Your task to perform on an android device: Open calendar and show me the first week of next month Image 0: 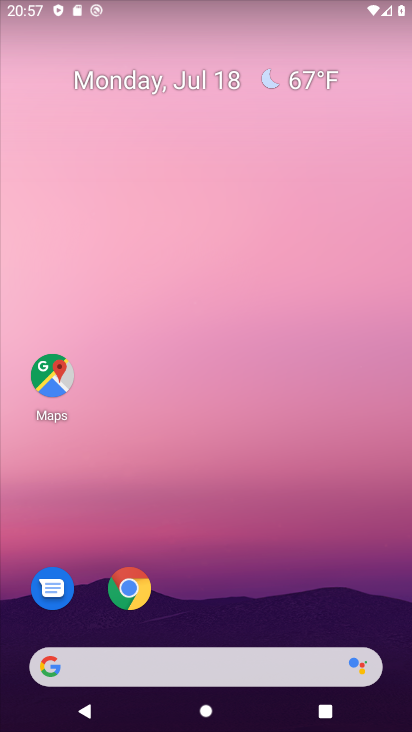
Step 0: drag from (370, 609) to (316, 118)
Your task to perform on an android device: Open calendar and show me the first week of next month Image 1: 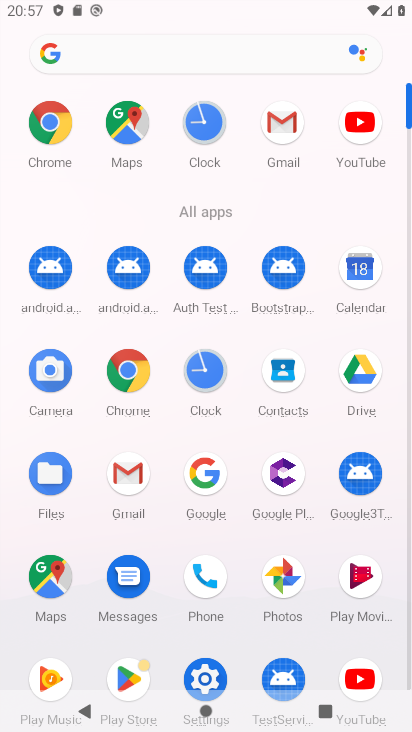
Step 1: click (359, 269)
Your task to perform on an android device: Open calendar and show me the first week of next month Image 2: 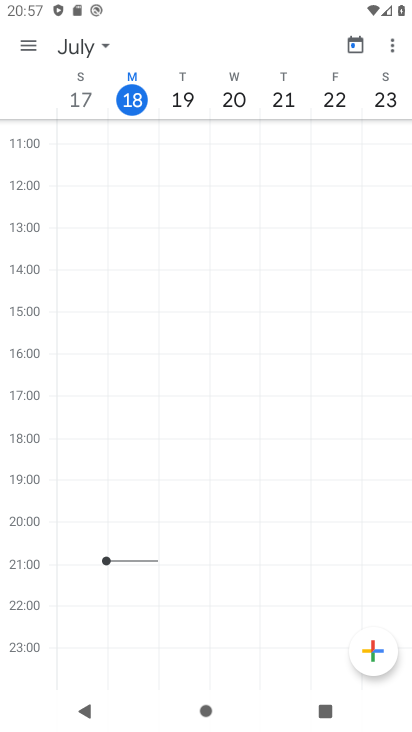
Step 2: click (101, 42)
Your task to perform on an android device: Open calendar and show me the first week of next month Image 3: 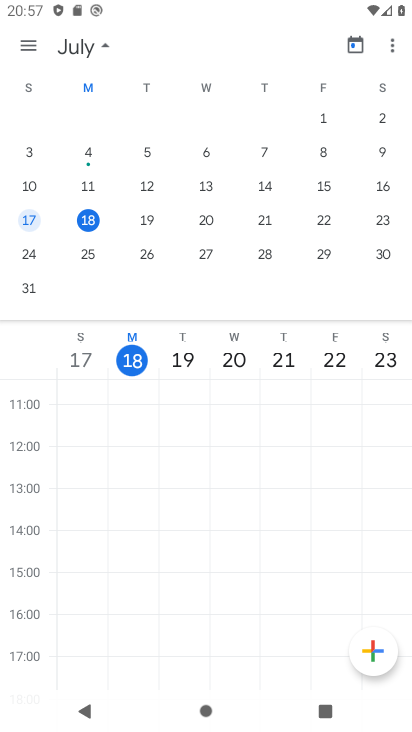
Step 3: drag from (383, 198) to (37, 196)
Your task to perform on an android device: Open calendar and show me the first week of next month Image 4: 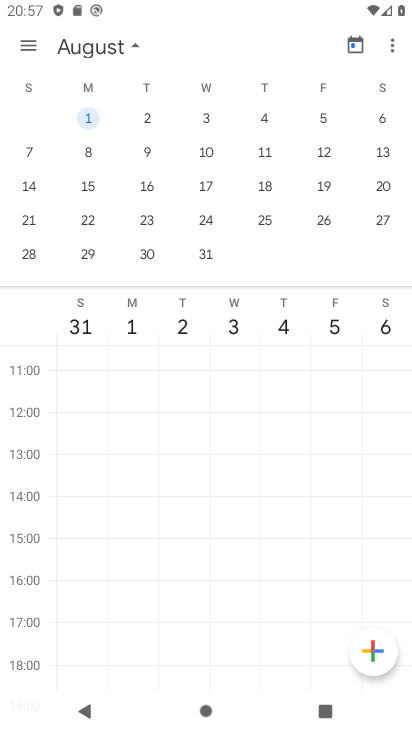
Step 4: click (28, 152)
Your task to perform on an android device: Open calendar and show me the first week of next month Image 5: 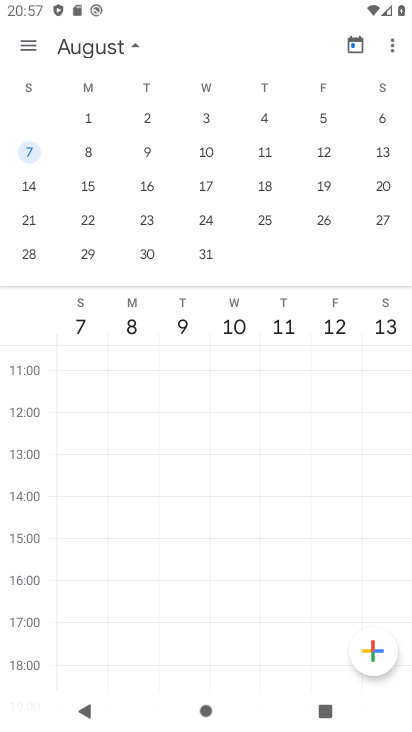
Step 5: task complete